Your task to perform on an android device: Open Wikipedia Image 0: 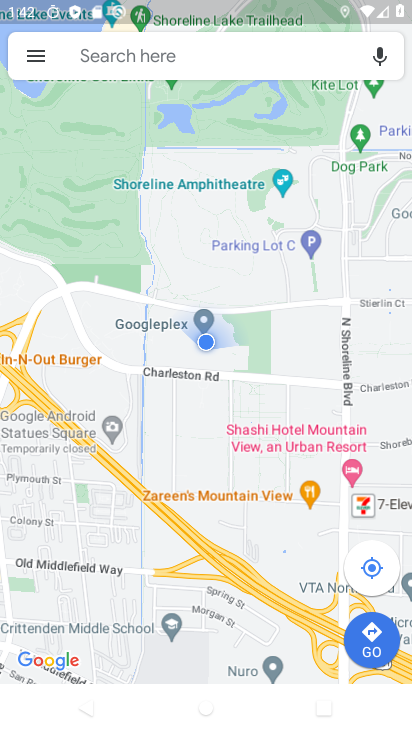
Step 0: press home button
Your task to perform on an android device: Open Wikipedia Image 1: 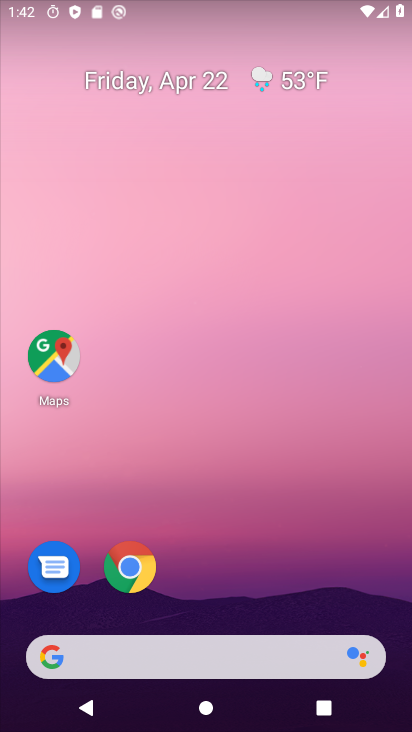
Step 1: click (132, 567)
Your task to perform on an android device: Open Wikipedia Image 2: 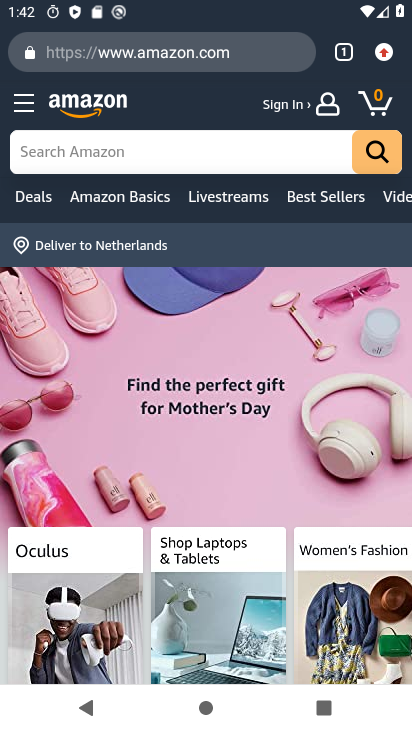
Step 2: drag from (383, 47) to (264, 165)
Your task to perform on an android device: Open Wikipedia Image 3: 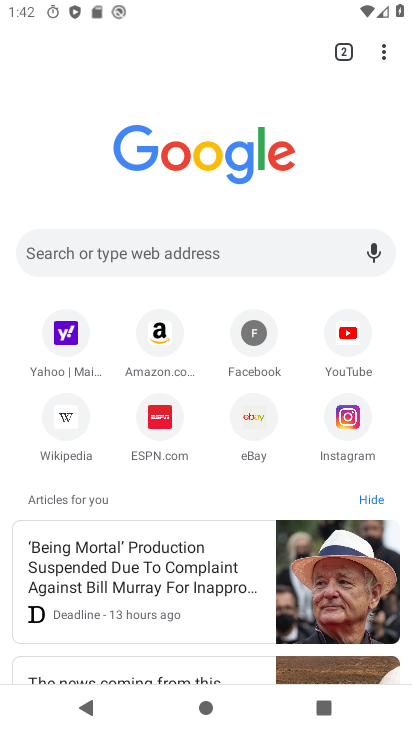
Step 3: click (69, 417)
Your task to perform on an android device: Open Wikipedia Image 4: 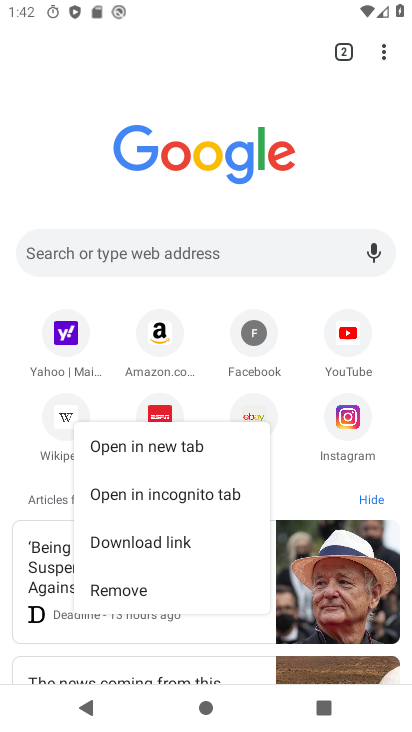
Step 4: click (69, 417)
Your task to perform on an android device: Open Wikipedia Image 5: 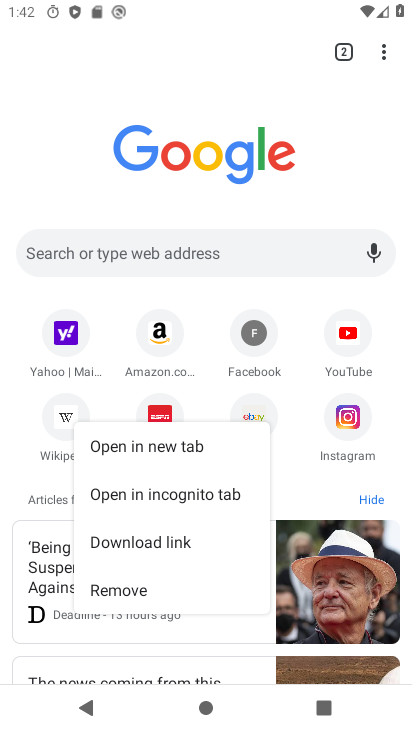
Step 5: click (63, 410)
Your task to perform on an android device: Open Wikipedia Image 6: 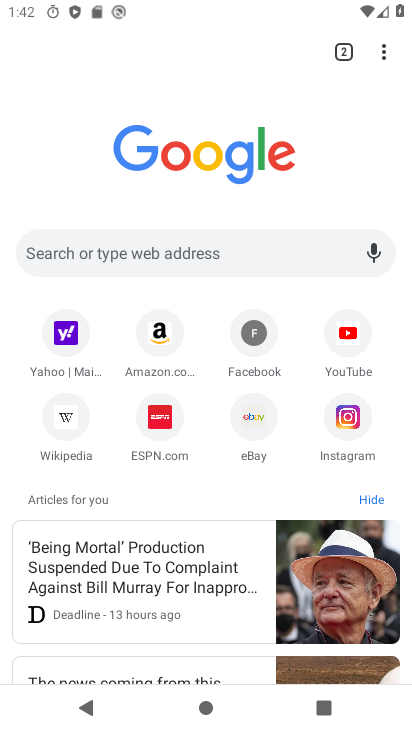
Step 6: click (63, 410)
Your task to perform on an android device: Open Wikipedia Image 7: 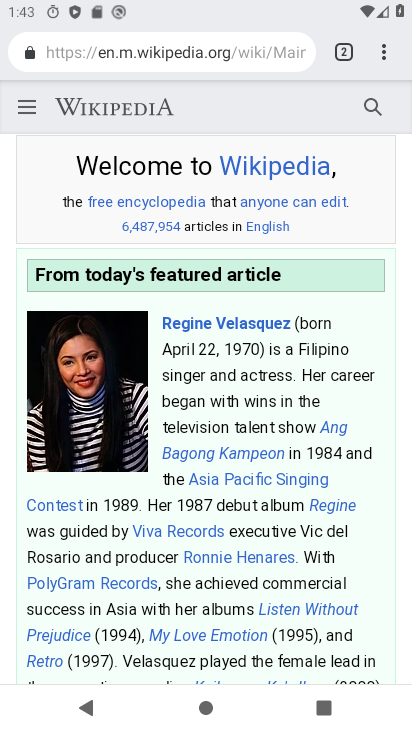
Step 7: task complete